Your task to perform on an android device: turn off javascript in the chrome app Image 0: 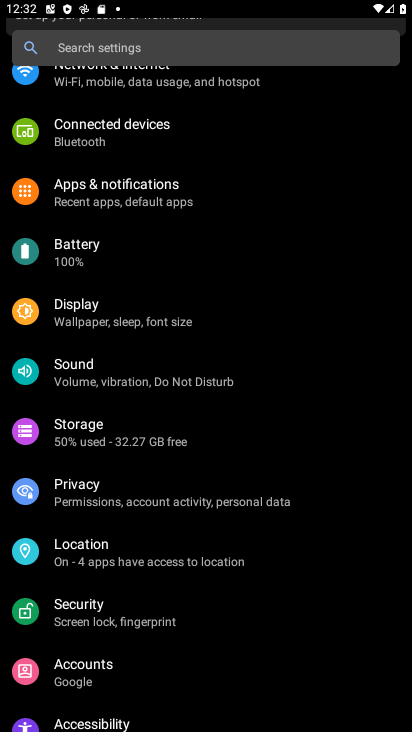
Step 0: press home button
Your task to perform on an android device: turn off javascript in the chrome app Image 1: 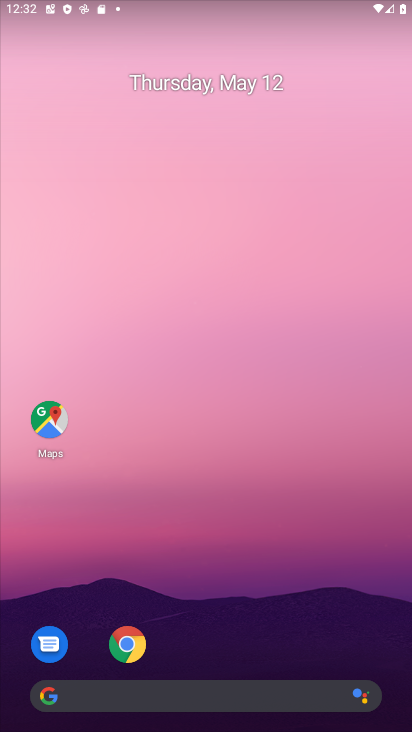
Step 1: drag from (242, 616) to (220, 139)
Your task to perform on an android device: turn off javascript in the chrome app Image 2: 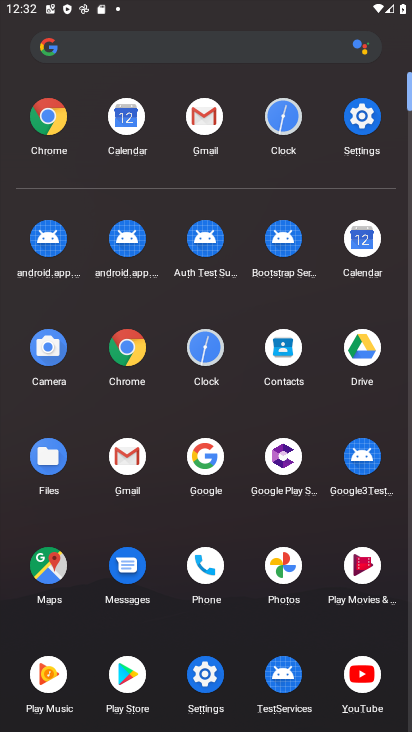
Step 2: click (362, 134)
Your task to perform on an android device: turn off javascript in the chrome app Image 3: 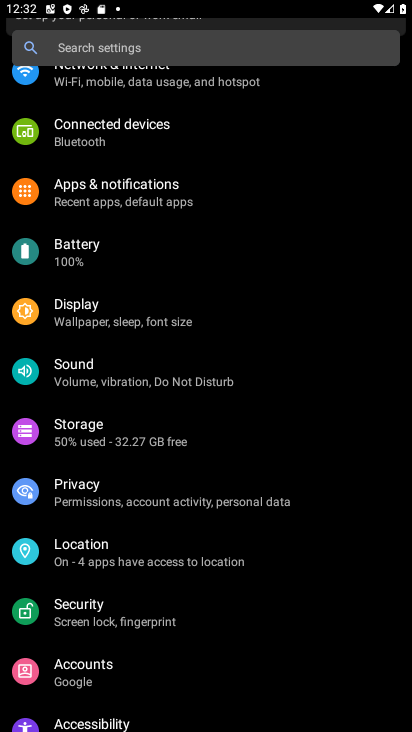
Step 3: press home button
Your task to perform on an android device: turn off javascript in the chrome app Image 4: 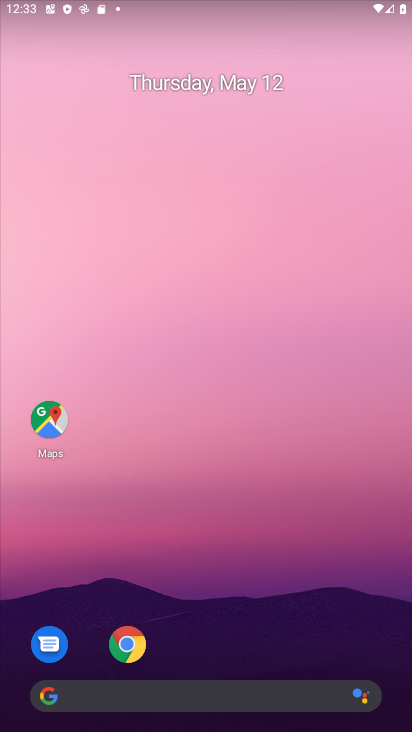
Step 4: click (131, 668)
Your task to perform on an android device: turn off javascript in the chrome app Image 5: 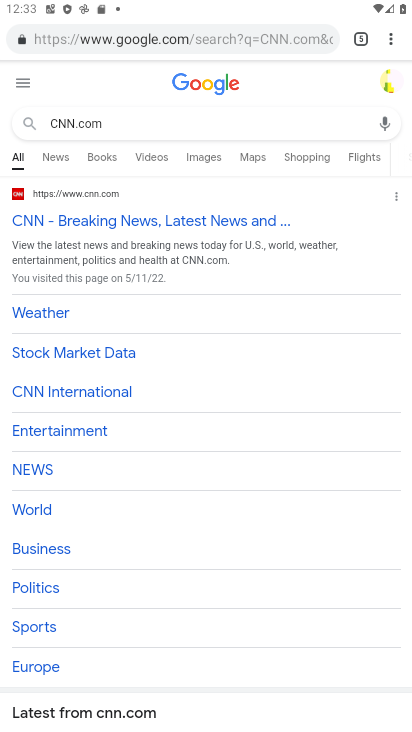
Step 5: click (386, 44)
Your task to perform on an android device: turn off javascript in the chrome app Image 6: 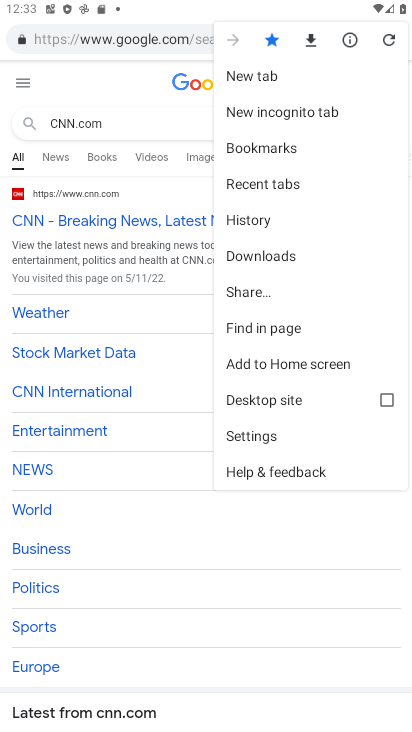
Step 6: click (283, 429)
Your task to perform on an android device: turn off javascript in the chrome app Image 7: 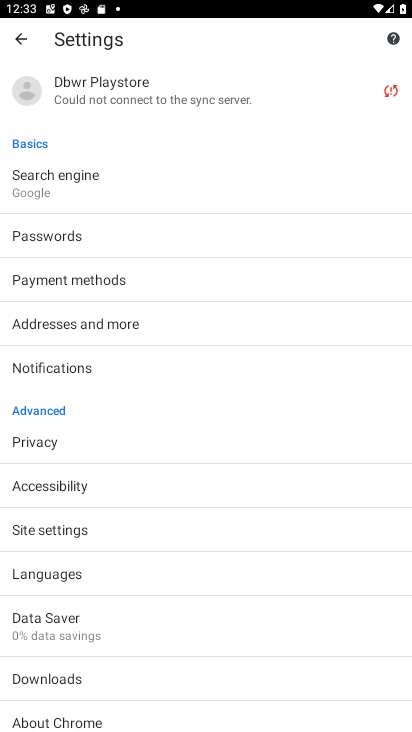
Step 7: click (214, 519)
Your task to perform on an android device: turn off javascript in the chrome app Image 8: 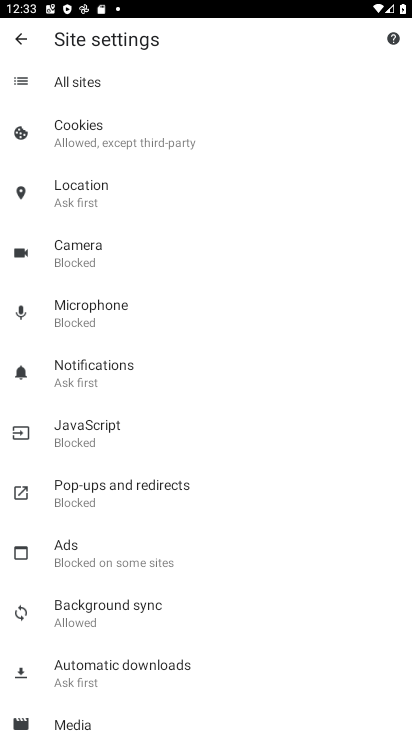
Step 8: click (155, 437)
Your task to perform on an android device: turn off javascript in the chrome app Image 9: 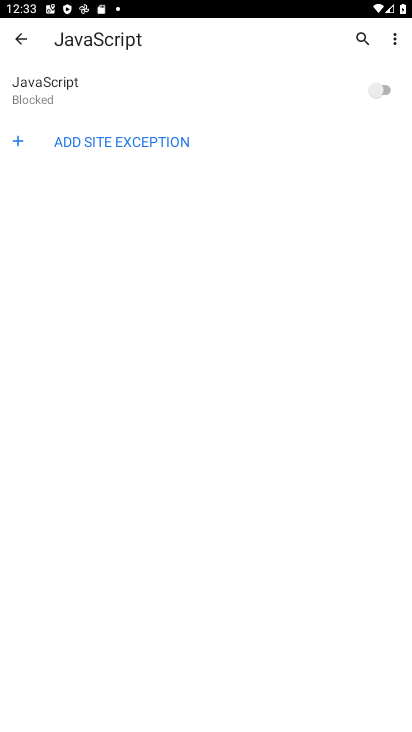
Step 9: task complete